Your task to perform on an android device: turn on sleep mode Image 0: 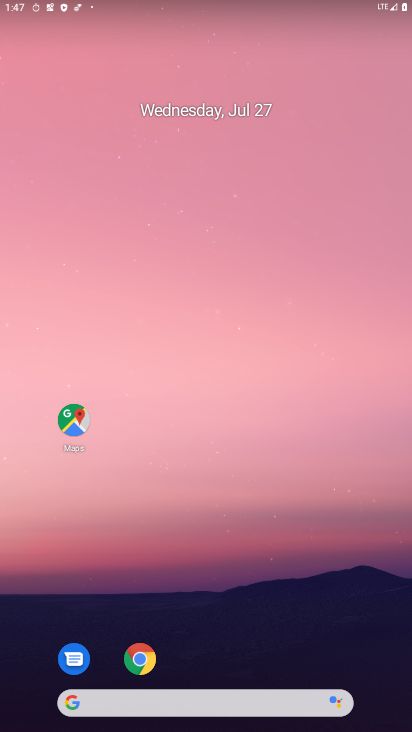
Step 0: drag from (286, 598) to (342, 10)
Your task to perform on an android device: turn on sleep mode Image 1: 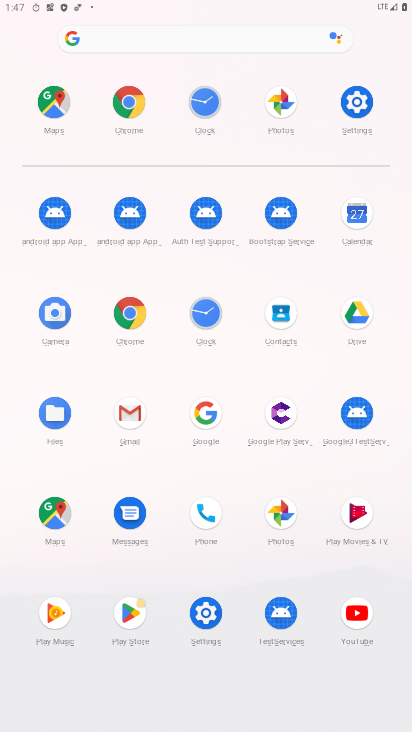
Step 1: click (208, 604)
Your task to perform on an android device: turn on sleep mode Image 2: 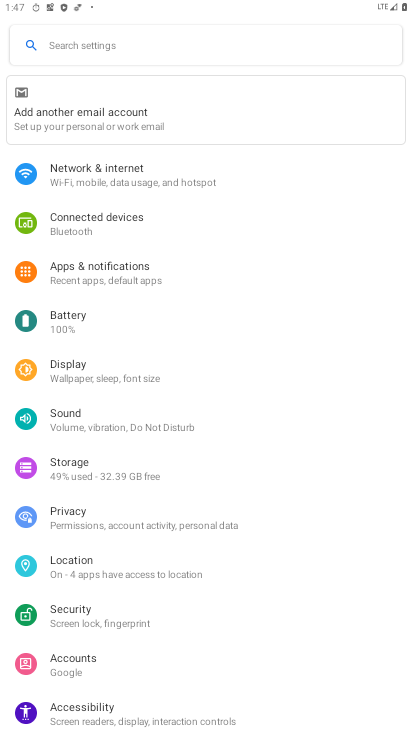
Step 2: click (77, 359)
Your task to perform on an android device: turn on sleep mode Image 3: 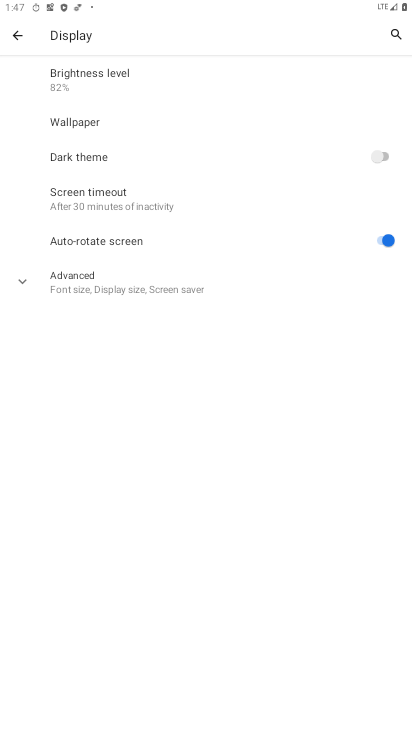
Step 3: task complete